Your task to perform on an android device: uninstall "Google Translate" Image 0: 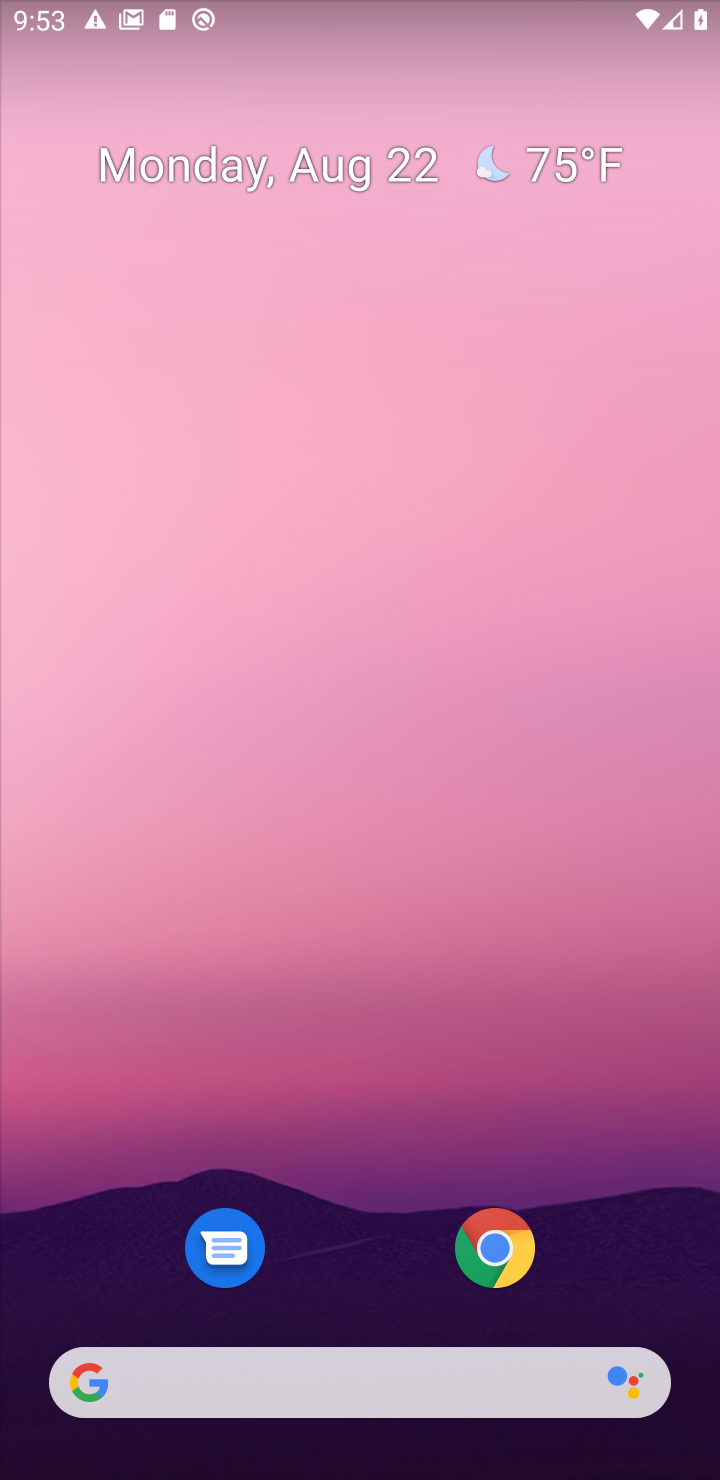
Step 0: drag from (373, 1322) to (415, 96)
Your task to perform on an android device: uninstall "Google Translate" Image 1: 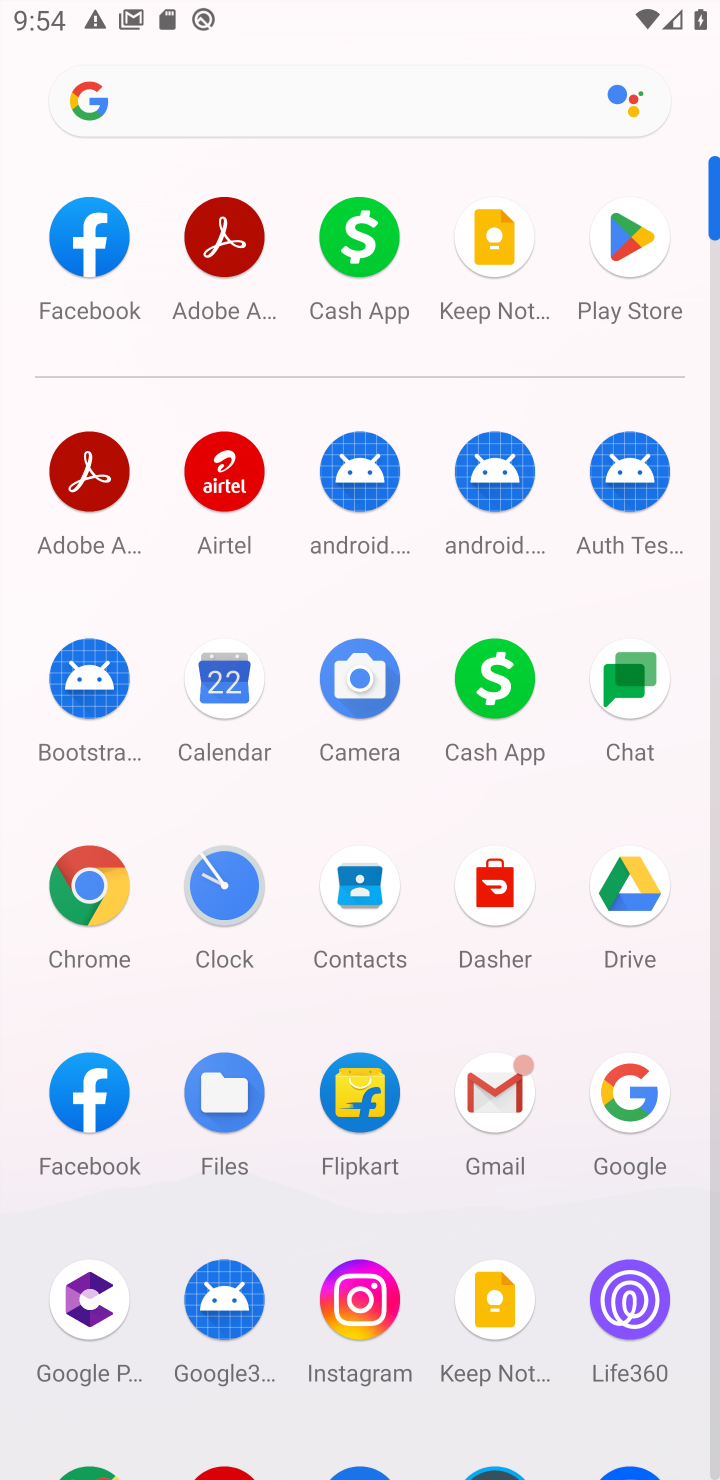
Step 1: click (619, 237)
Your task to perform on an android device: uninstall "Google Translate" Image 2: 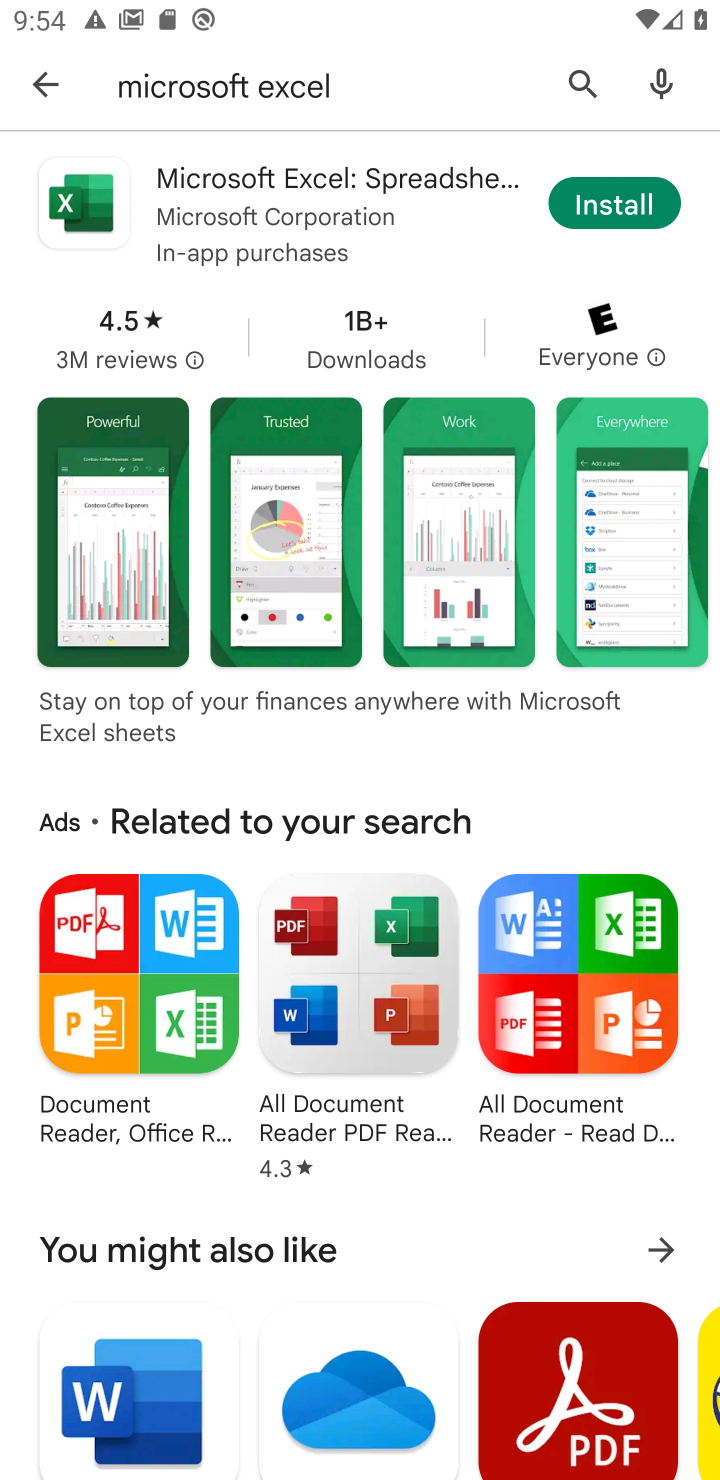
Step 2: click (571, 74)
Your task to perform on an android device: uninstall "Google Translate" Image 3: 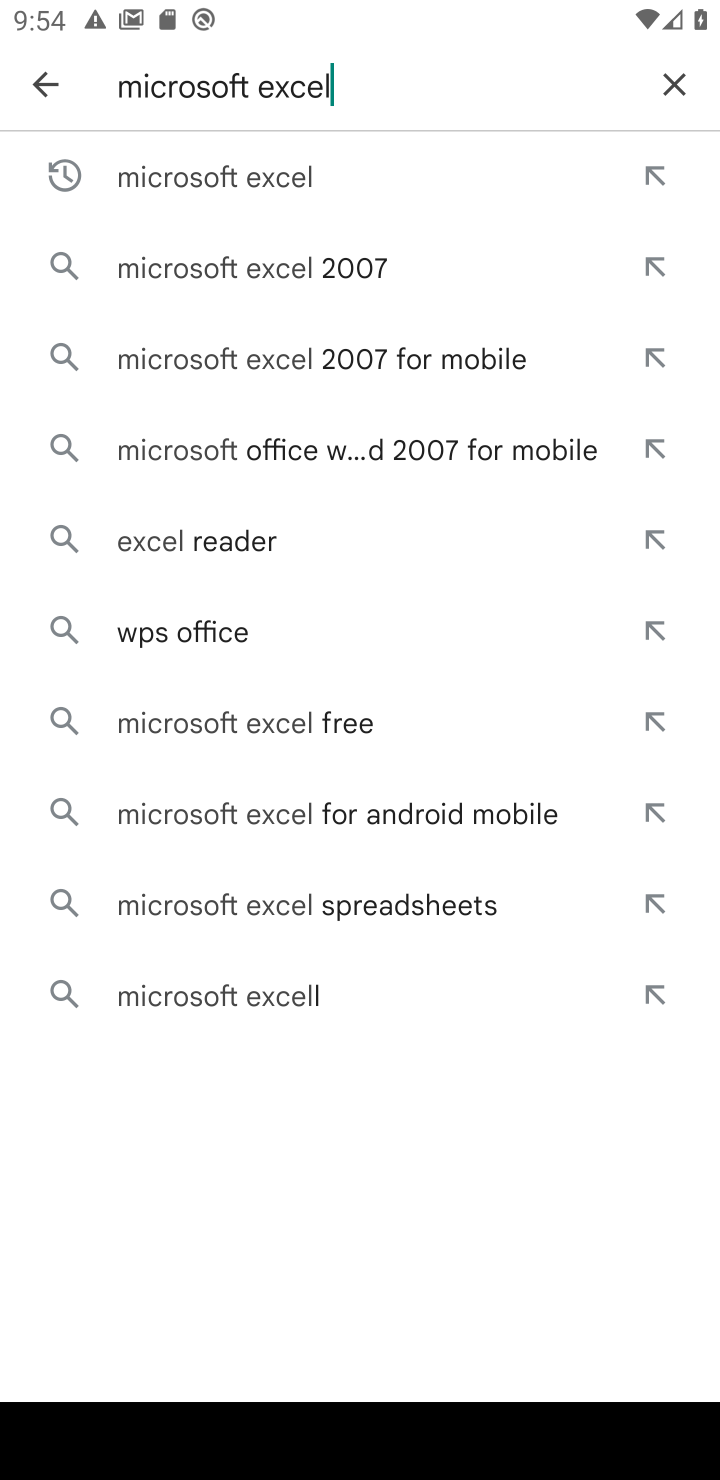
Step 3: click (673, 82)
Your task to perform on an android device: uninstall "Google Translate" Image 4: 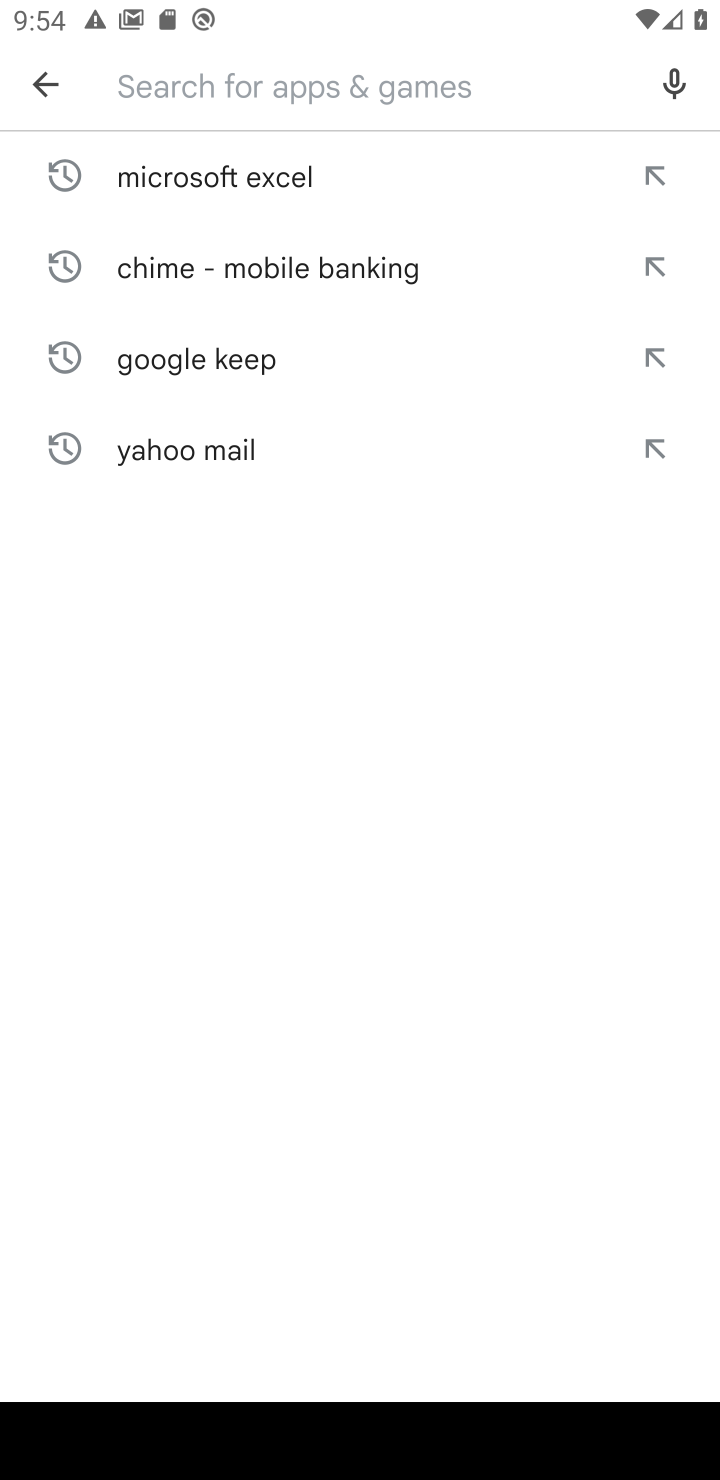
Step 4: type "Google Translate"
Your task to perform on an android device: uninstall "Google Translate" Image 5: 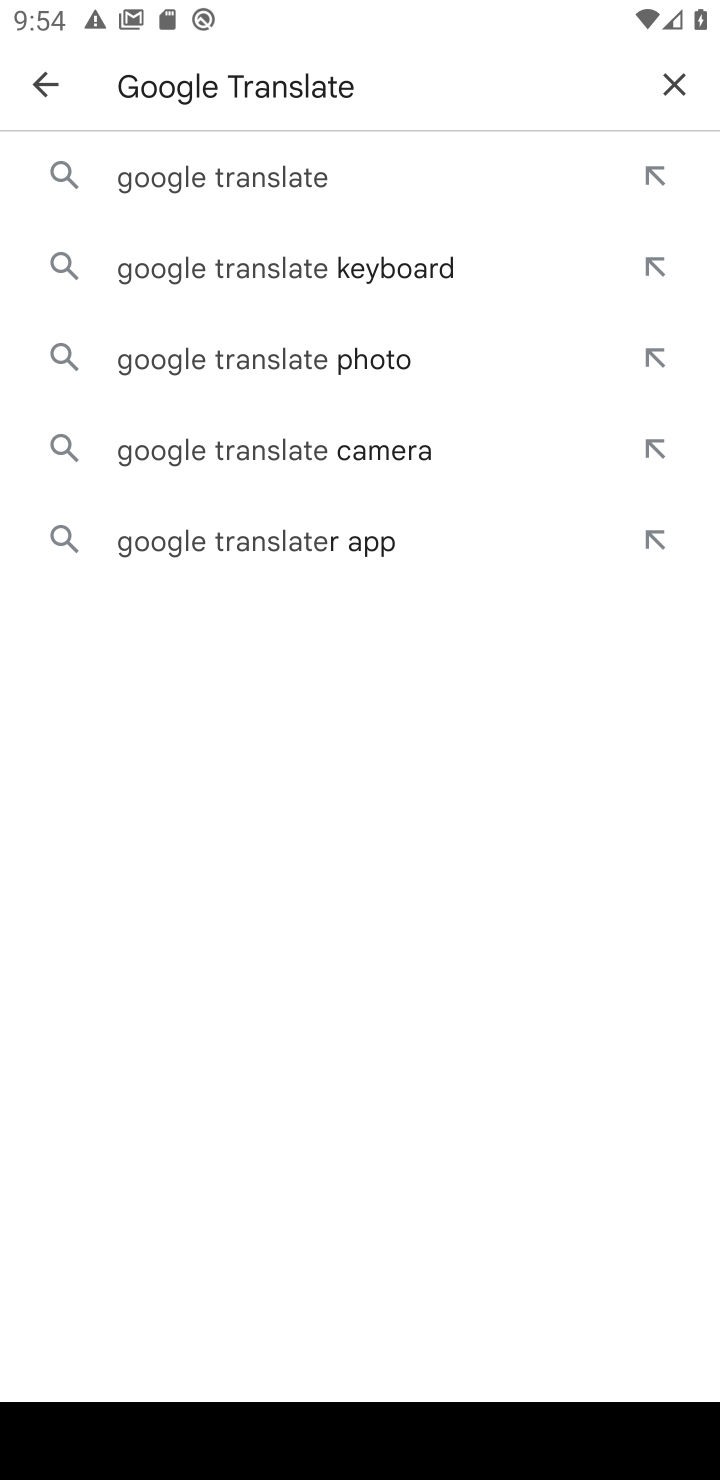
Step 5: click (234, 175)
Your task to perform on an android device: uninstall "Google Translate" Image 6: 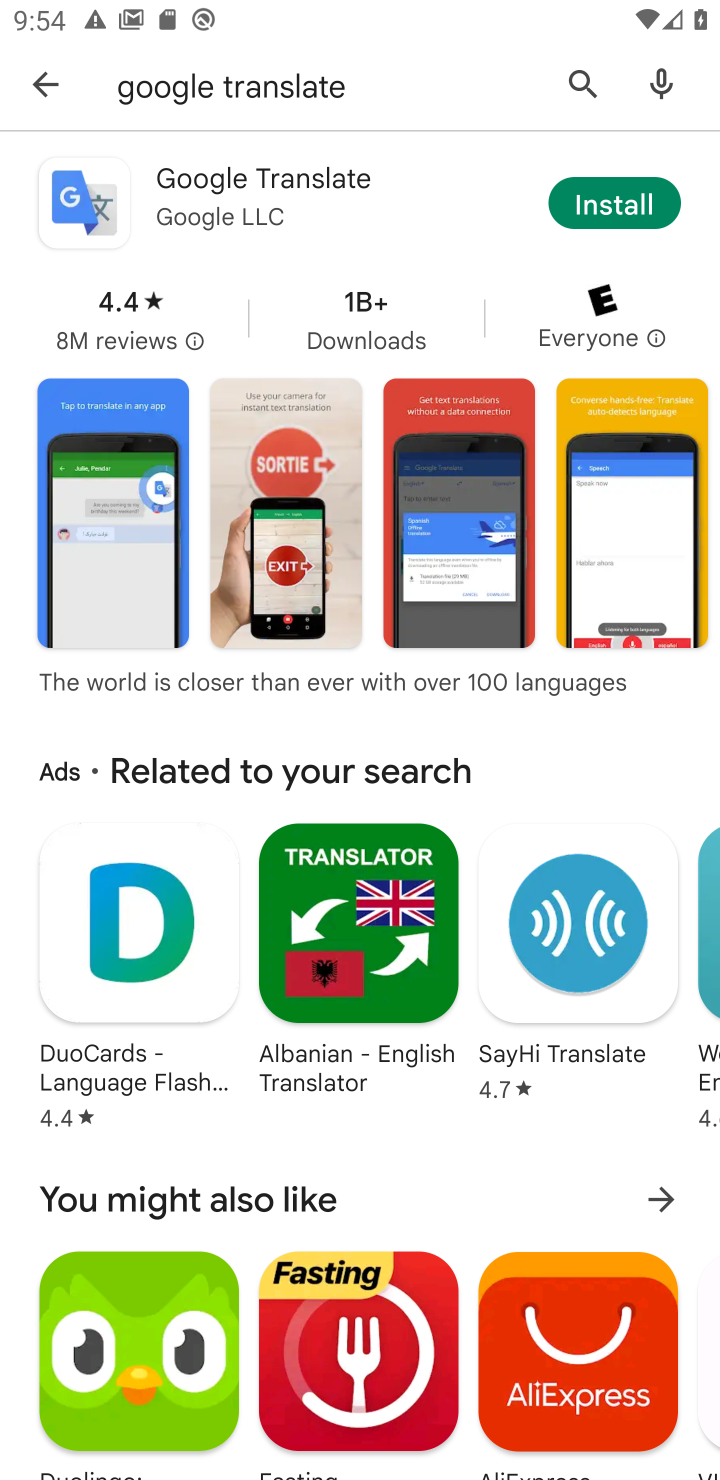
Step 6: task complete